Your task to perform on an android device: turn on showing notifications on the lock screen Image 0: 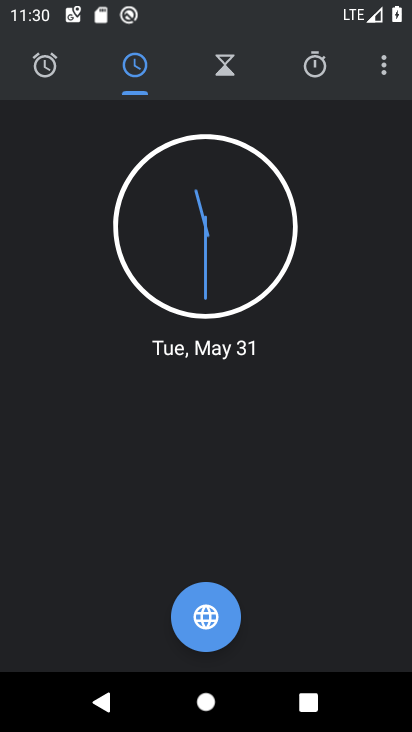
Step 0: press home button
Your task to perform on an android device: turn on showing notifications on the lock screen Image 1: 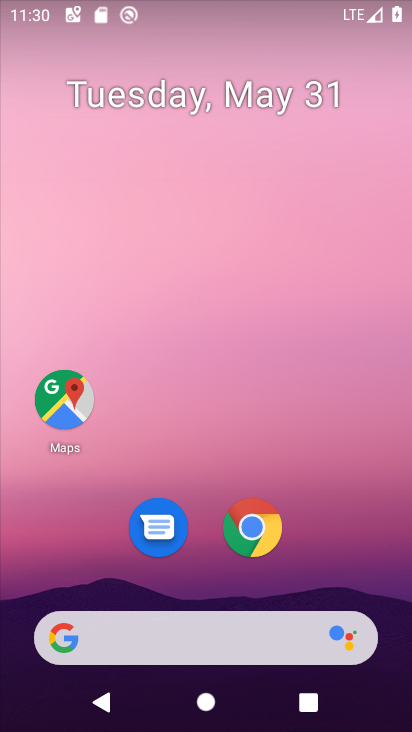
Step 1: drag from (346, 608) to (341, 32)
Your task to perform on an android device: turn on showing notifications on the lock screen Image 2: 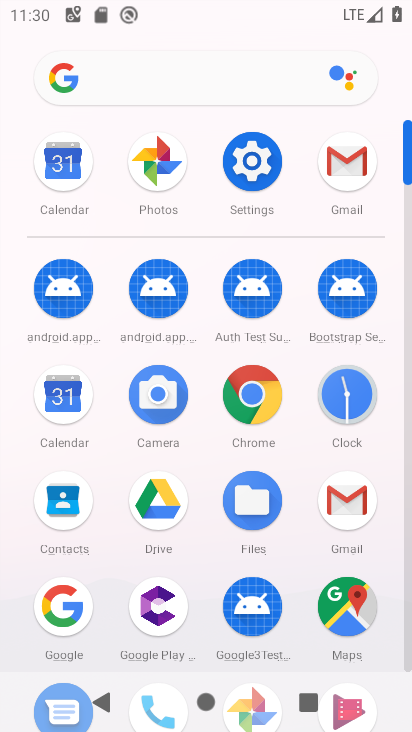
Step 2: click (256, 166)
Your task to perform on an android device: turn on showing notifications on the lock screen Image 3: 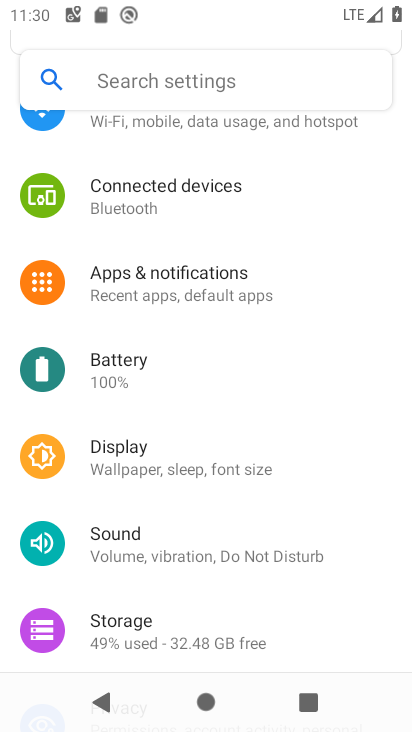
Step 3: click (174, 285)
Your task to perform on an android device: turn on showing notifications on the lock screen Image 4: 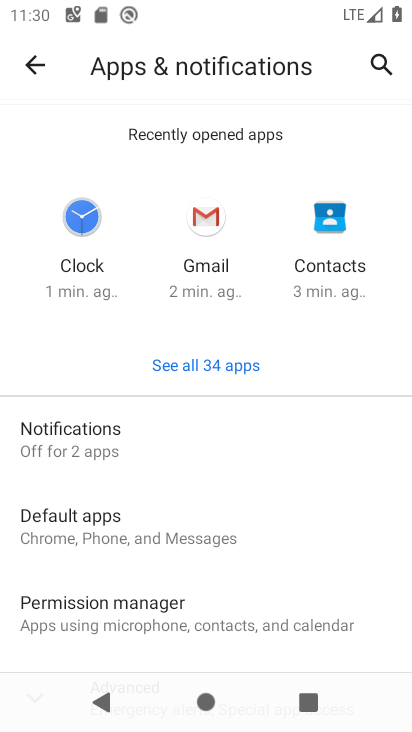
Step 4: click (71, 451)
Your task to perform on an android device: turn on showing notifications on the lock screen Image 5: 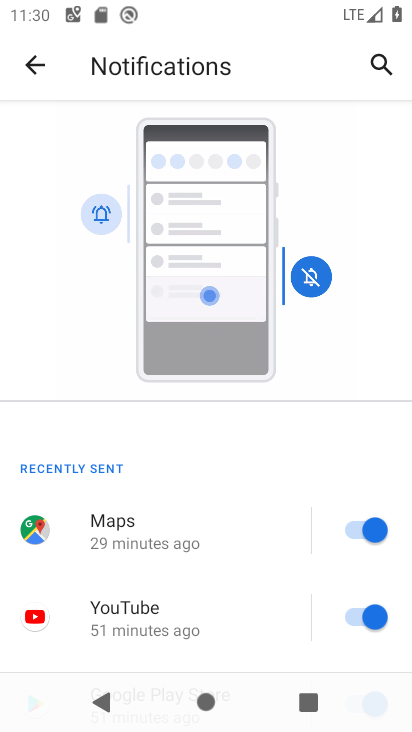
Step 5: drag from (146, 546) to (140, 138)
Your task to perform on an android device: turn on showing notifications on the lock screen Image 6: 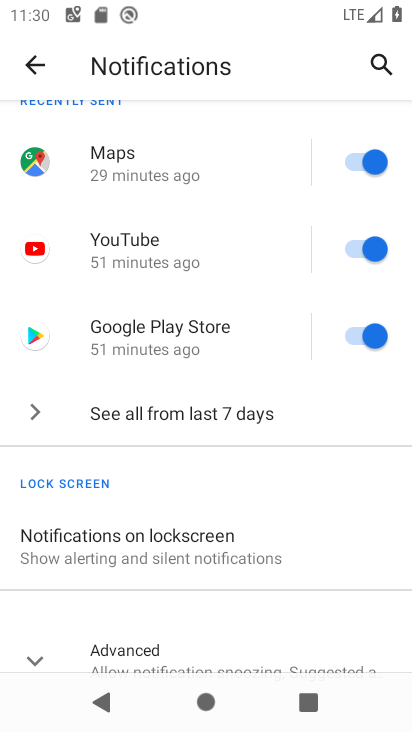
Step 6: click (122, 552)
Your task to perform on an android device: turn on showing notifications on the lock screen Image 7: 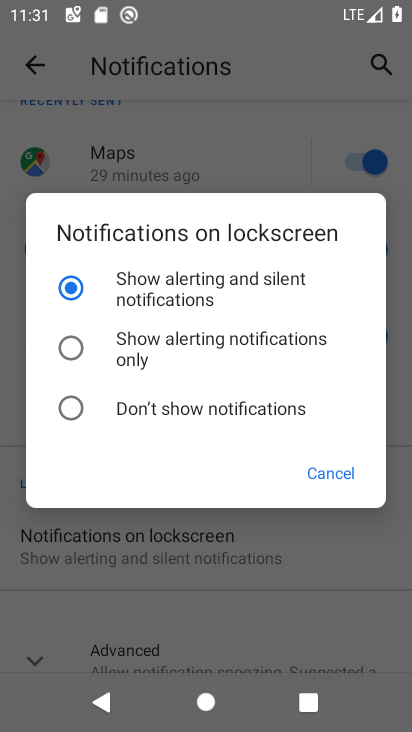
Step 7: task complete